Your task to perform on an android device: Open calendar and show me the second week of next month Image 0: 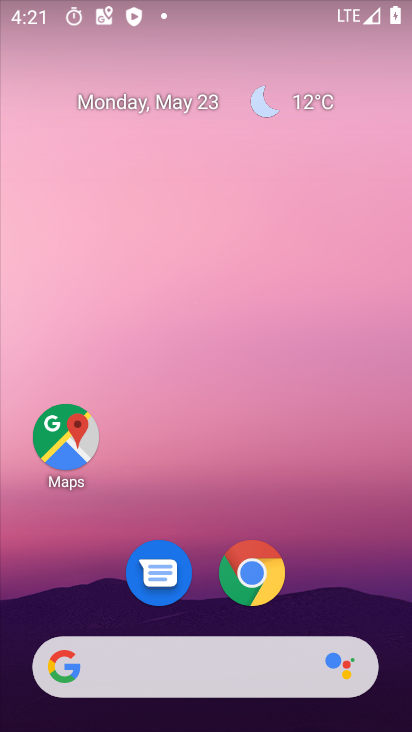
Step 0: press home button
Your task to perform on an android device: Open calendar and show me the second week of next month Image 1: 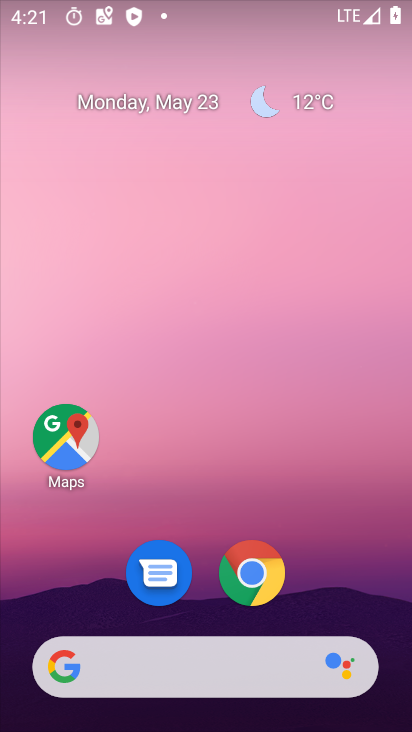
Step 1: drag from (92, 540) to (322, 195)
Your task to perform on an android device: Open calendar and show me the second week of next month Image 2: 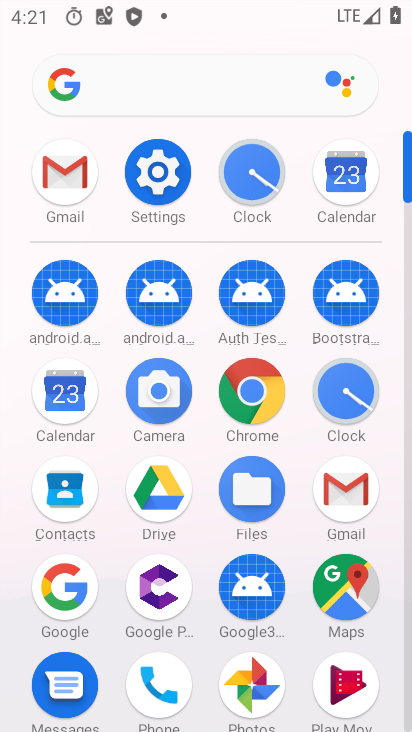
Step 2: click (60, 398)
Your task to perform on an android device: Open calendar and show me the second week of next month Image 3: 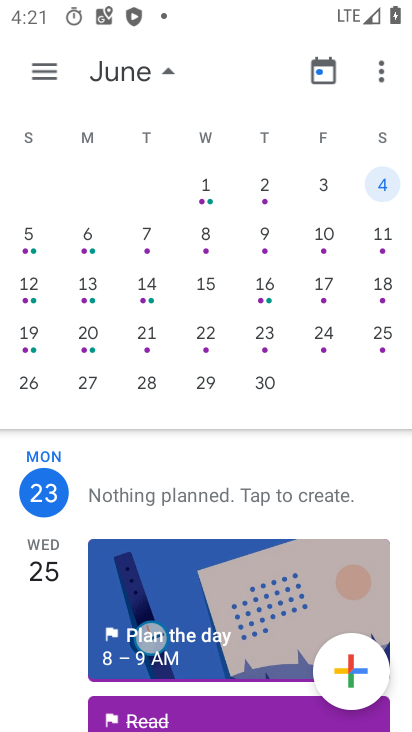
Step 3: click (91, 236)
Your task to perform on an android device: Open calendar and show me the second week of next month Image 4: 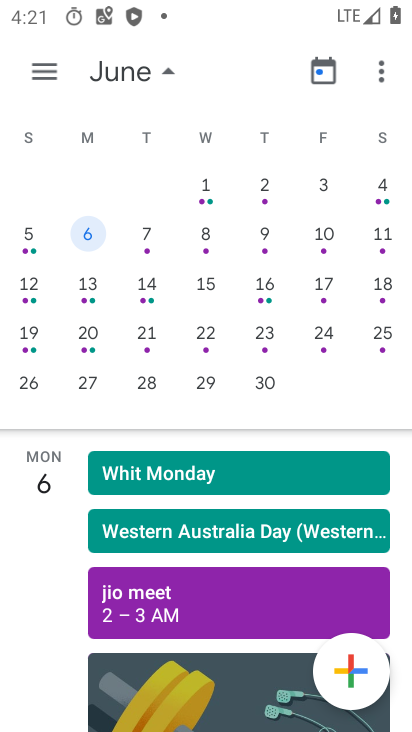
Step 4: click (158, 235)
Your task to perform on an android device: Open calendar and show me the second week of next month Image 5: 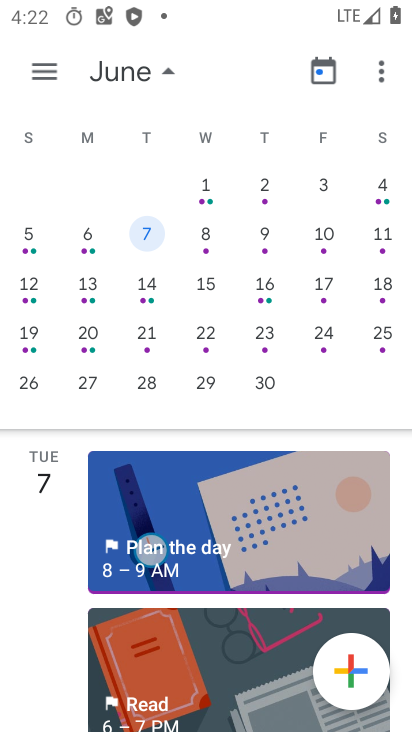
Step 5: click (194, 241)
Your task to perform on an android device: Open calendar and show me the second week of next month Image 6: 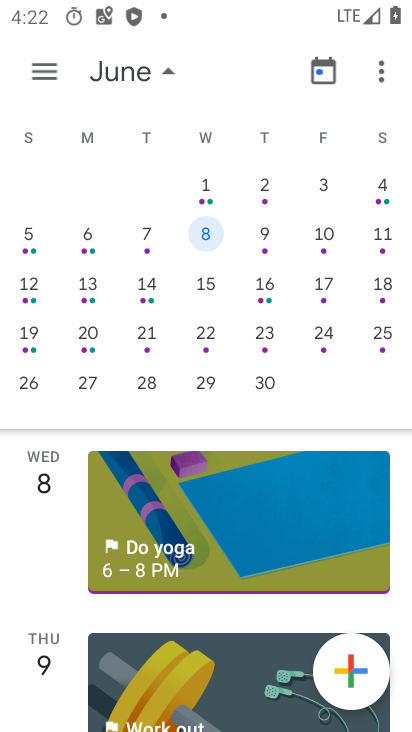
Step 6: click (267, 237)
Your task to perform on an android device: Open calendar and show me the second week of next month Image 7: 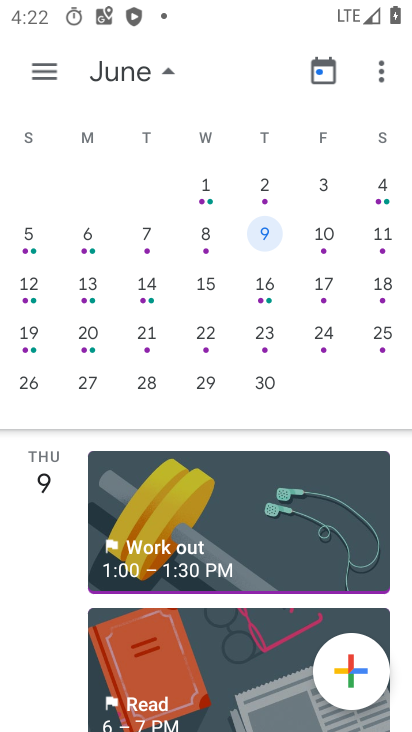
Step 7: task complete